Your task to perform on an android device: Go to location settings Image 0: 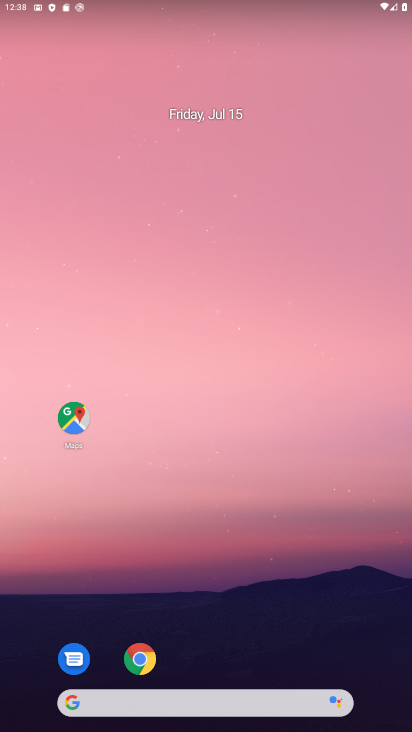
Step 0: drag from (246, 715) to (230, 62)
Your task to perform on an android device: Go to location settings Image 1: 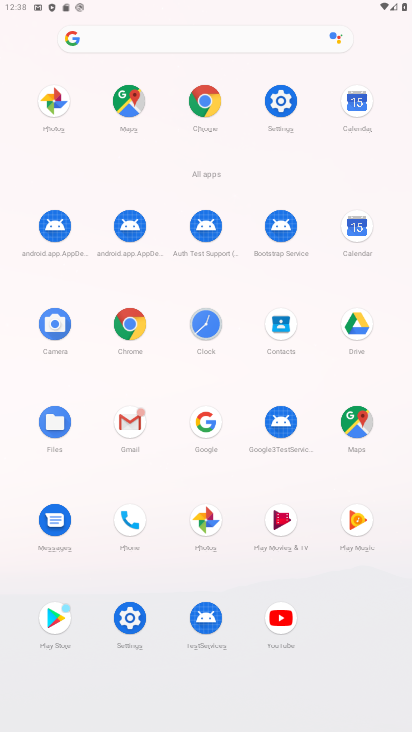
Step 1: click (282, 97)
Your task to perform on an android device: Go to location settings Image 2: 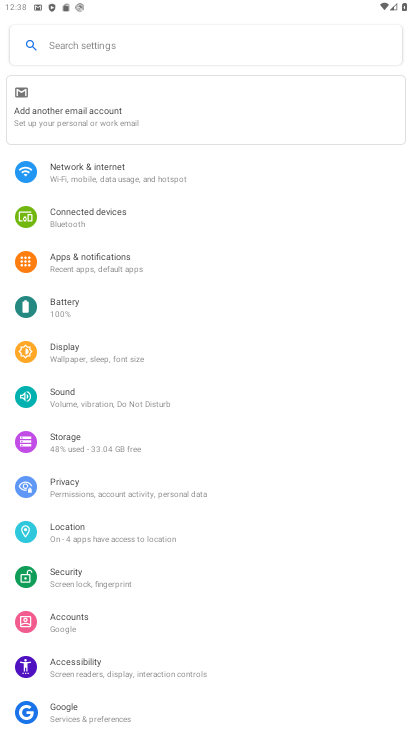
Step 2: click (74, 530)
Your task to perform on an android device: Go to location settings Image 3: 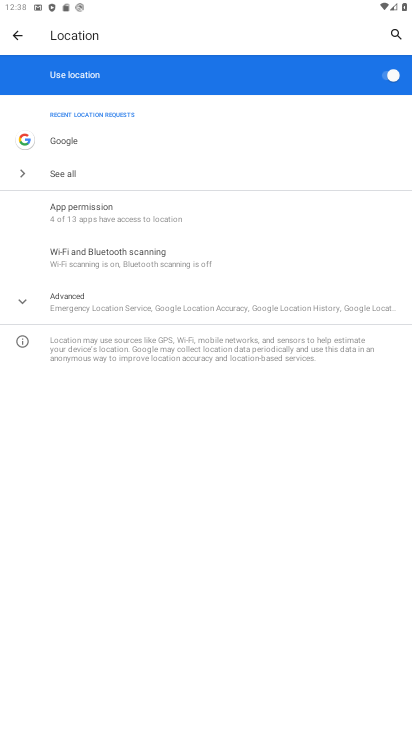
Step 3: task complete